Your task to perform on an android device: open the mobile data screen to see how much data has been used Image 0: 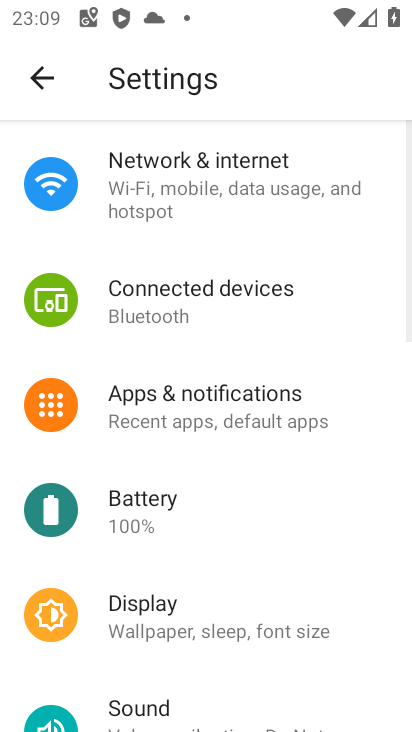
Step 0: press home button
Your task to perform on an android device: open the mobile data screen to see how much data has been used Image 1: 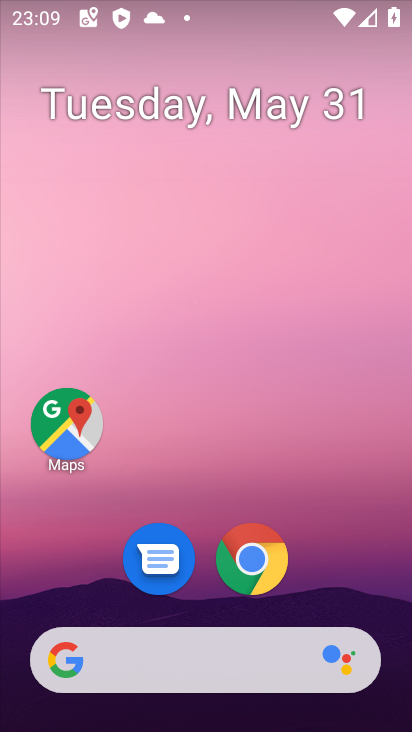
Step 1: drag from (343, 576) to (315, 70)
Your task to perform on an android device: open the mobile data screen to see how much data has been used Image 2: 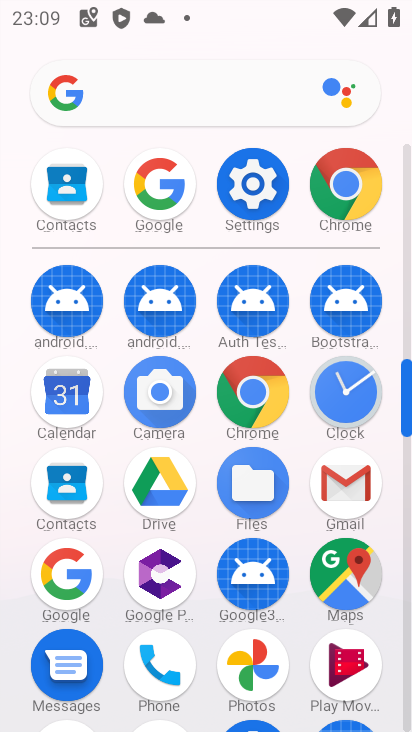
Step 2: click (255, 182)
Your task to perform on an android device: open the mobile data screen to see how much data has been used Image 3: 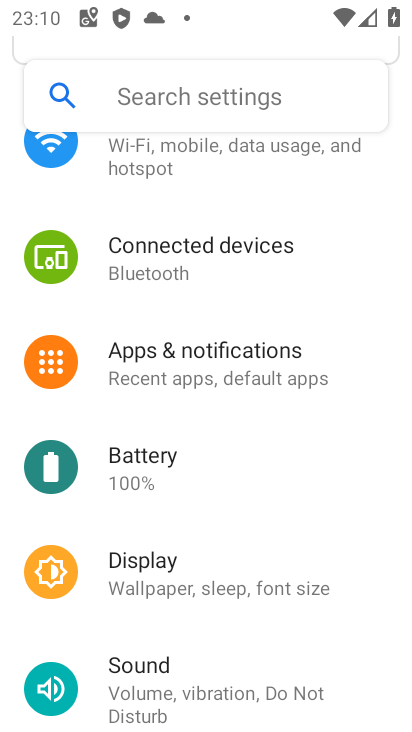
Step 3: click (170, 161)
Your task to perform on an android device: open the mobile data screen to see how much data has been used Image 4: 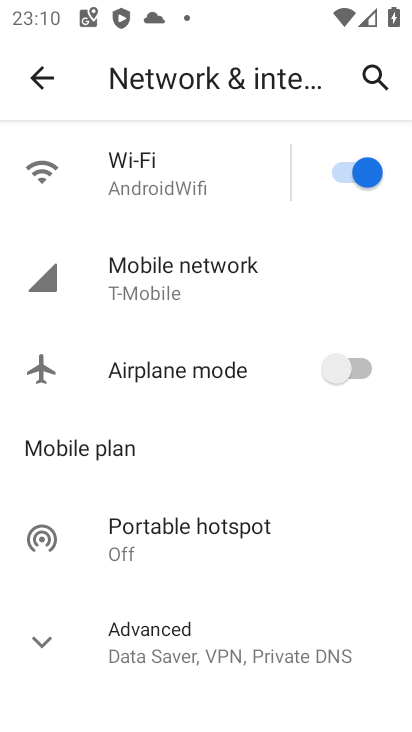
Step 4: click (188, 288)
Your task to perform on an android device: open the mobile data screen to see how much data has been used Image 5: 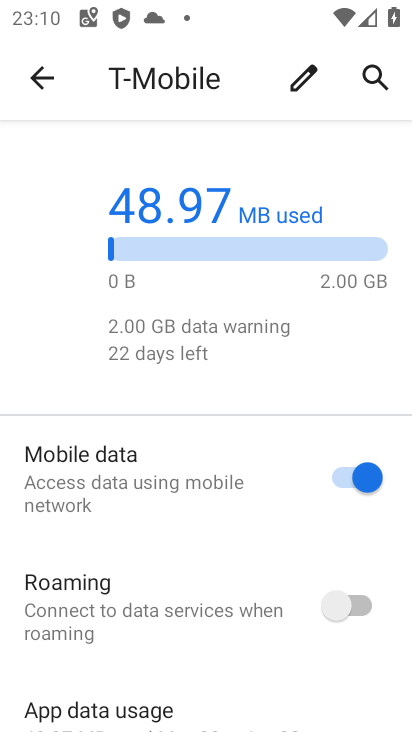
Step 5: task complete